Your task to perform on an android device: star an email in the gmail app Image 0: 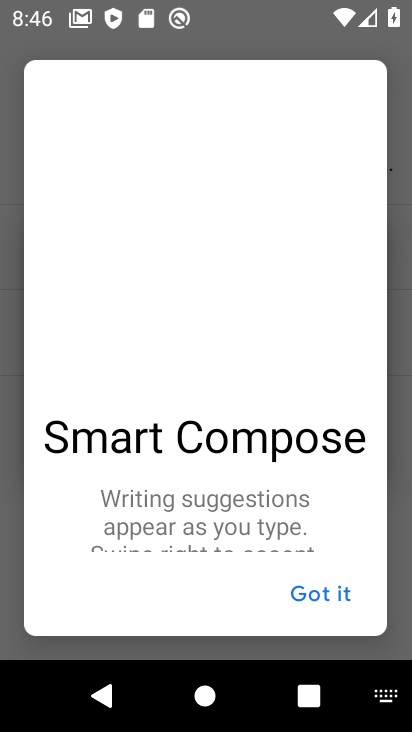
Step 0: press home button
Your task to perform on an android device: star an email in the gmail app Image 1: 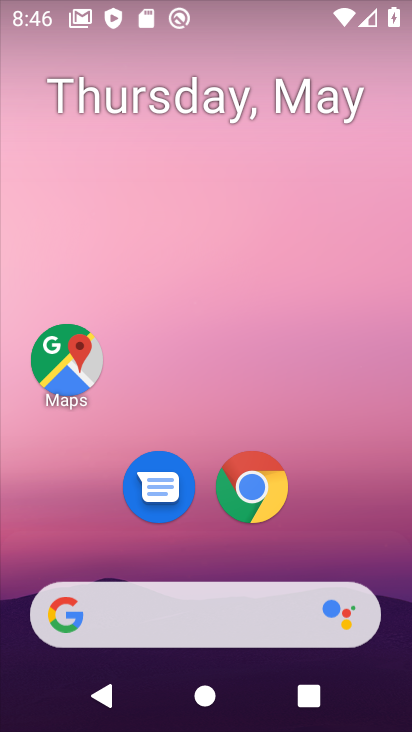
Step 1: drag from (210, 569) to (173, 34)
Your task to perform on an android device: star an email in the gmail app Image 2: 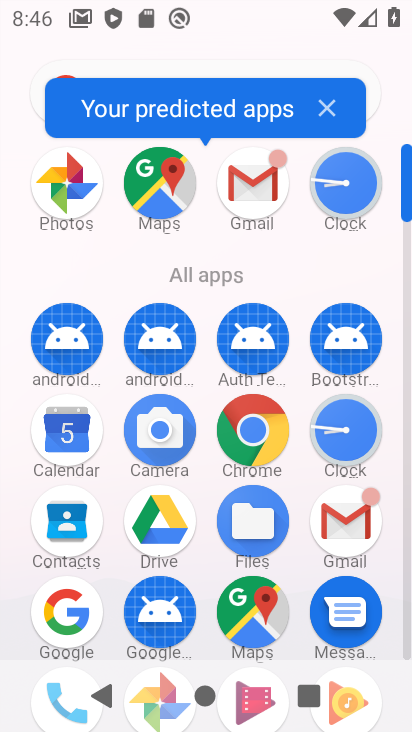
Step 2: click (344, 498)
Your task to perform on an android device: star an email in the gmail app Image 3: 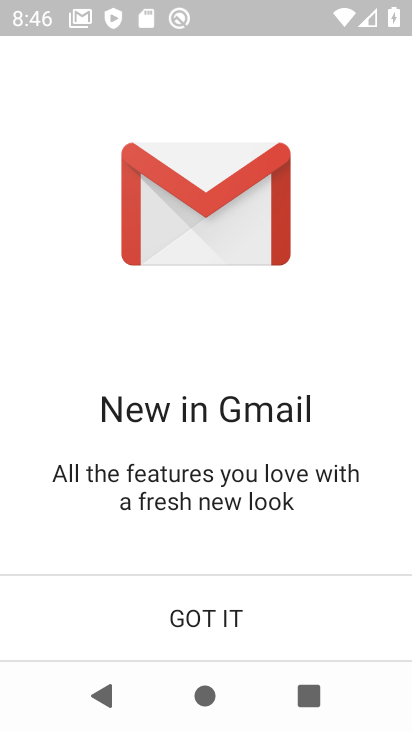
Step 3: click (231, 595)
Your task to perform on an android device: star an email in the gmail app Image 4: 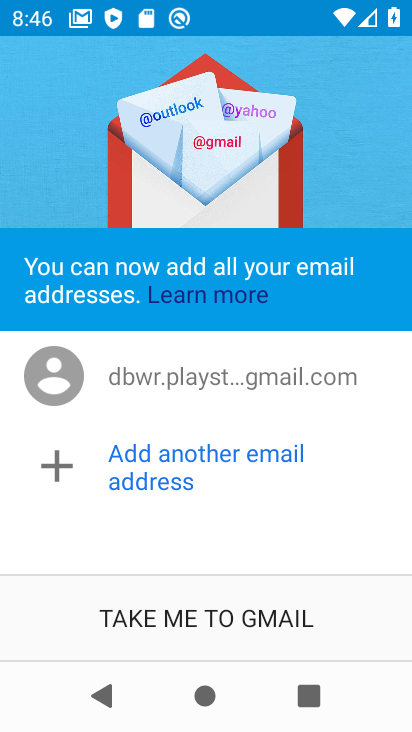
Step 4: click (231, 595)
Your task to perform on an android device: star an email in the gmail app Image 5: 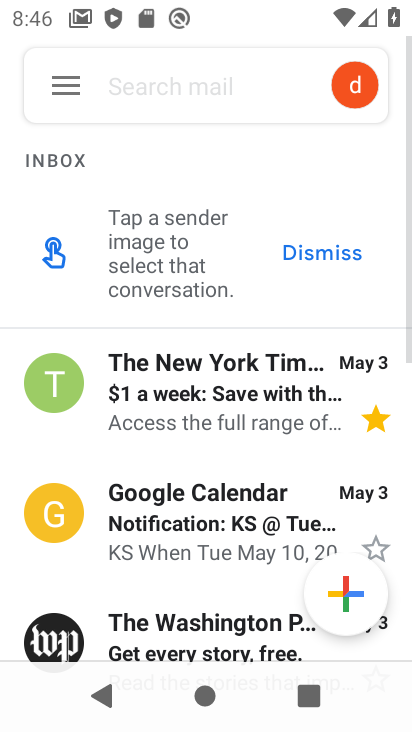
Step 5: click (374, 532)
Your task to perform on an android device: star an email in the gmail app Image 6: 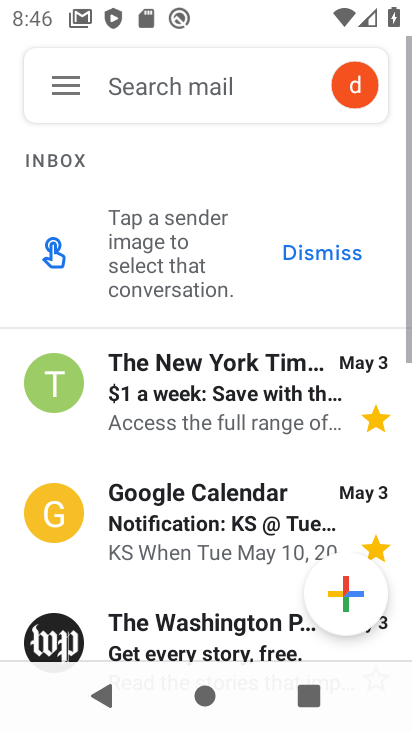
Step 6: task complete